Your task to perform on an android device: Do I have any events tomorrow? Image 0: 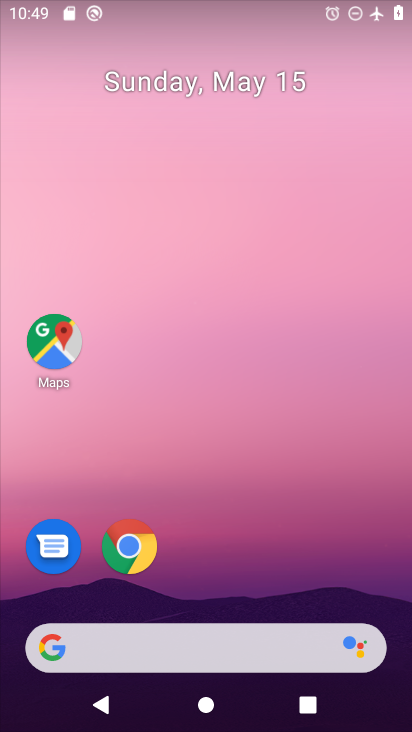
Step 0: drag from (301, 548) to (296, 125)
Your task to perform on an android device: Do I have any events tomorrow? Image 1: 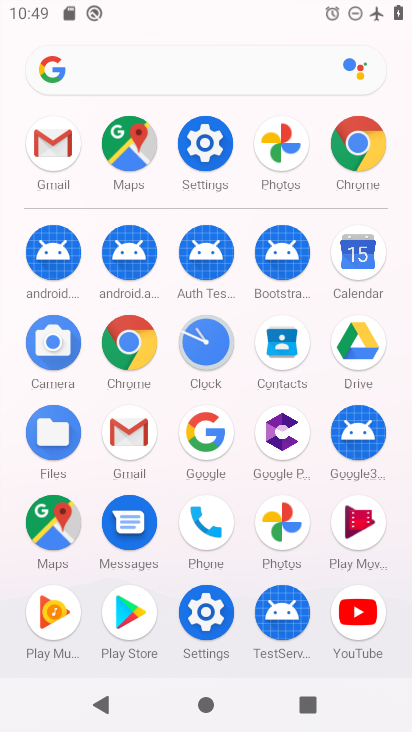
Step 1: click (347, 247)
Your task to perform on an android device: Do I have any events tomorrow? Image 2: 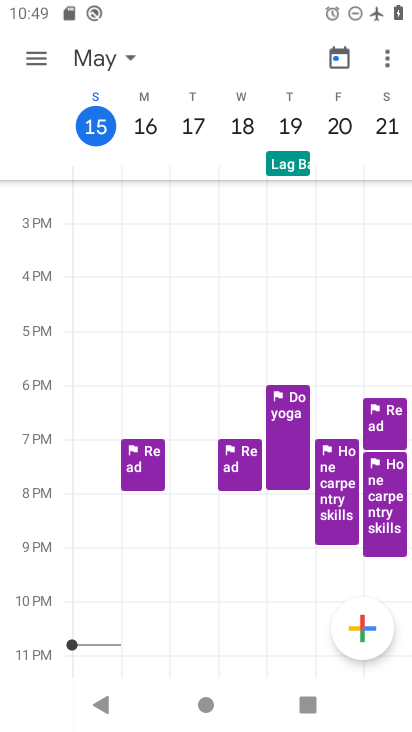
Step 2: click (44, 64)
Your task to perform on an android device: Do I have any events tomorrow? Image 3: 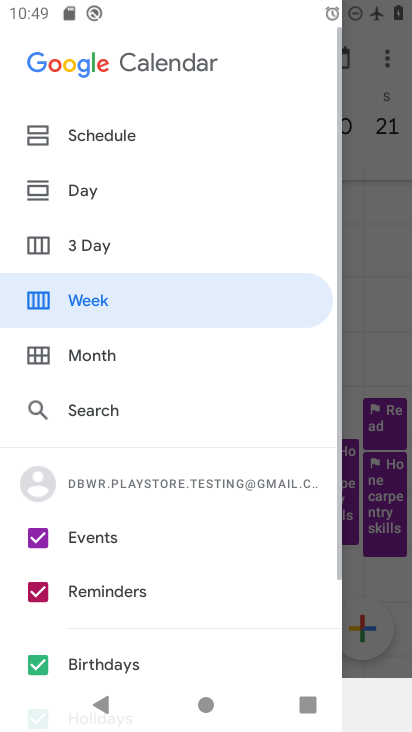
Step 3: click (80, 240)
Your task to perform on an android device: Do I have any events tomorrow? Image 4: 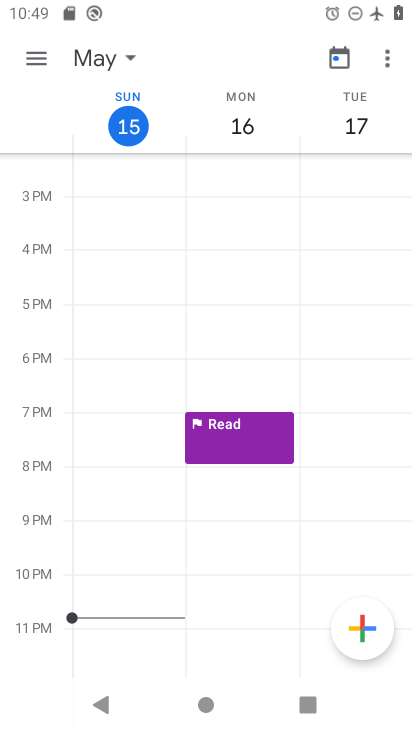
Step 4: task complete